Your task to perform on an android device: Show me popular games on the Play Store Image 0: 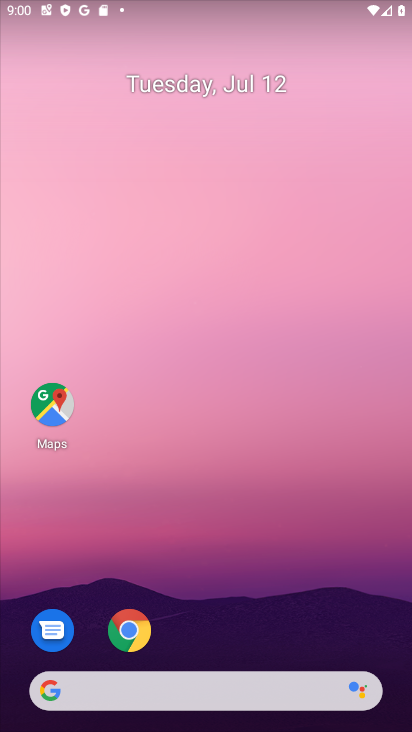
Step 0: drag from (230, 597) to (266, 68)
Your task to perform on an android device: Show me popular games on the Play Store Image 1: 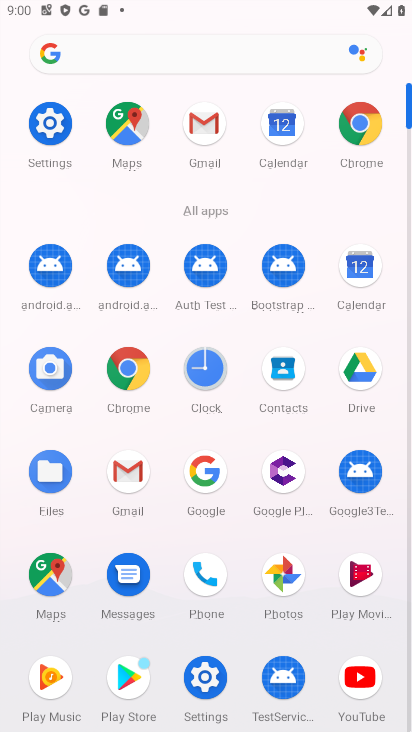
Step 1: click (121, 673)
Your task to perform on an android device: Show me popular games on the Play Store Image 2: 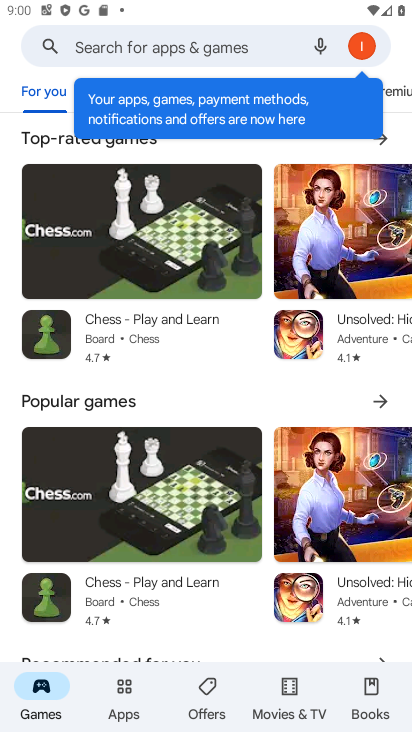
Step 2: drag from (169, 395) to (168, 284)
Your task to perform on an android device: Show me popular games on the Play Store Image 3: 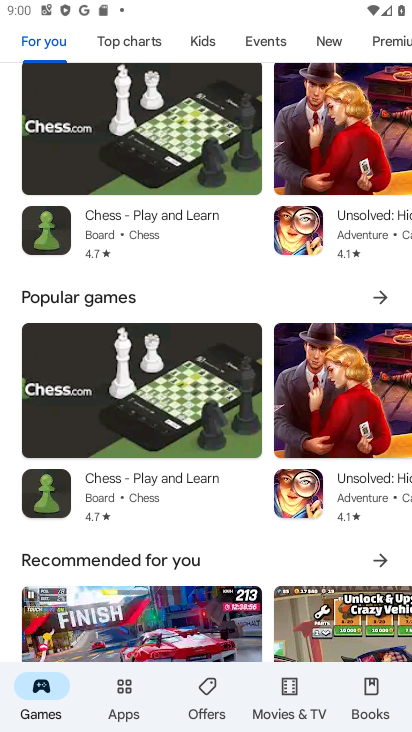
Step 3: click (361, 294)
Your task to perform on an android device: Show me popular games on the Play Store Image 4: 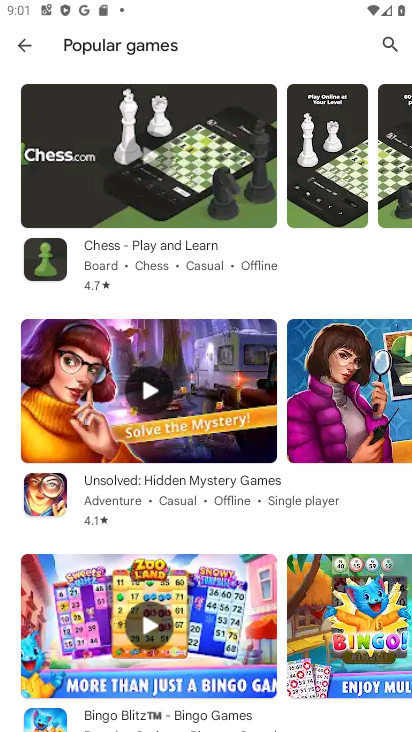
Step 4: task complete